Your task to perform on an android device: Is it going to rain today? Image 0: 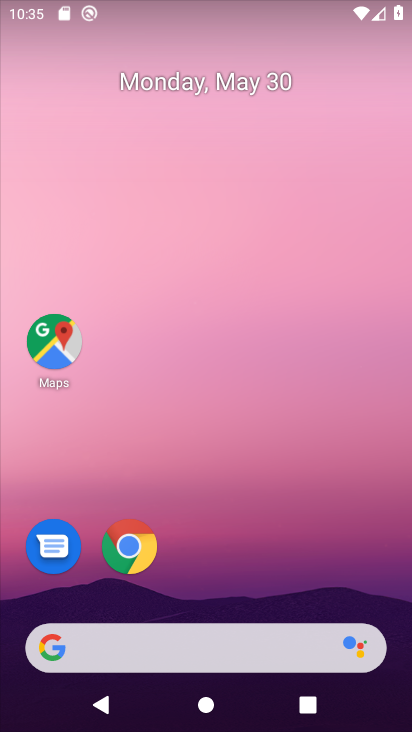
Step 0: click (226, 655)
Your task to perform on an android device: Is it going to rain today? Image 1: 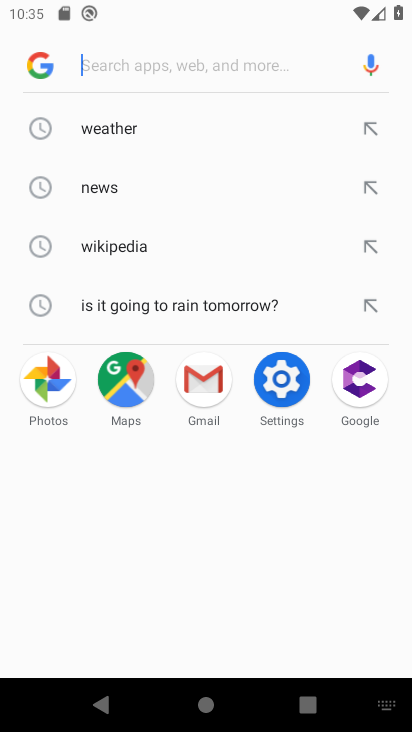
Step 1: click (114, 137)
Your task to perform on an android device: Is it going to rain today? Image 2: 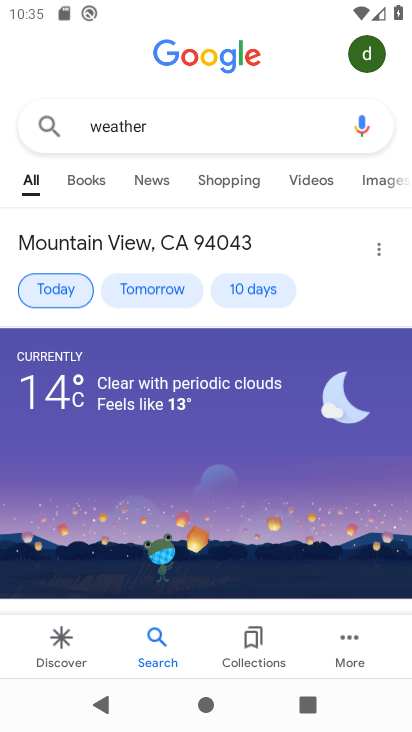
Step 2: task complete